Your task to perform on an android device: See recent photos Image 0: 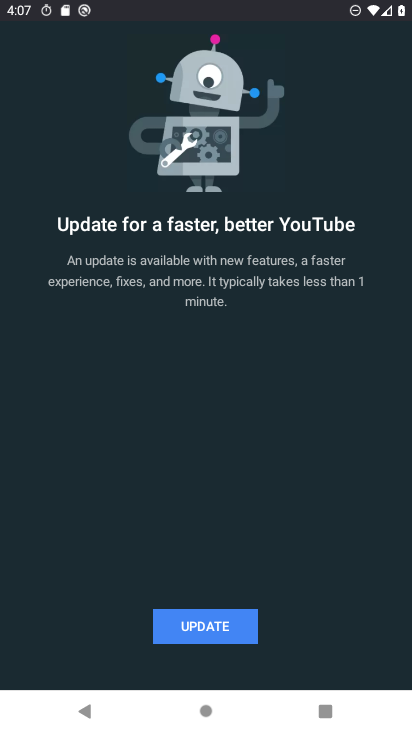
Step 0: press home button
Your task to perform on an android device: See recent photos Image 1: 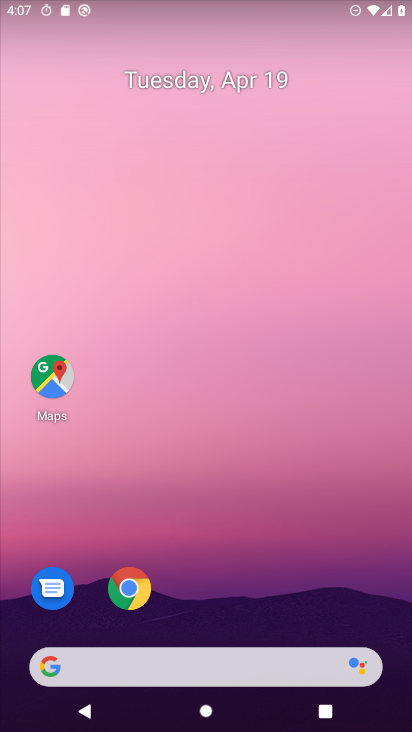
Step 1: drag from (219, 580) to (234, 84)
Your task to perform on an android device: See recent photos Image 2: 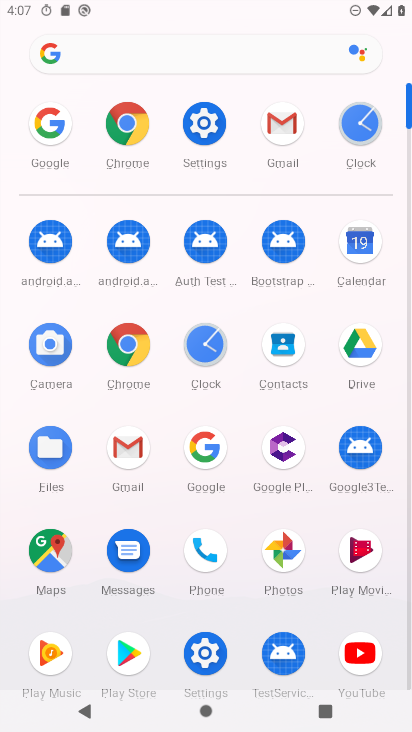
Step 2: click (285, 548)
Your task to perform on an android device: See recent photos Image 3: 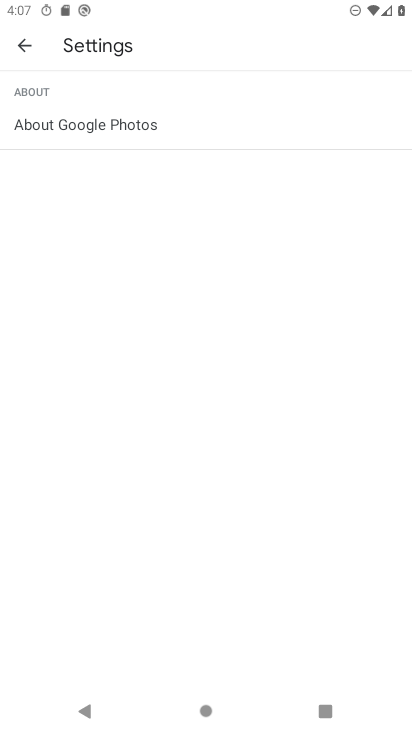
Step 3: click (24, 52)
Your task to perform on an android device: See recent photos Image 4: 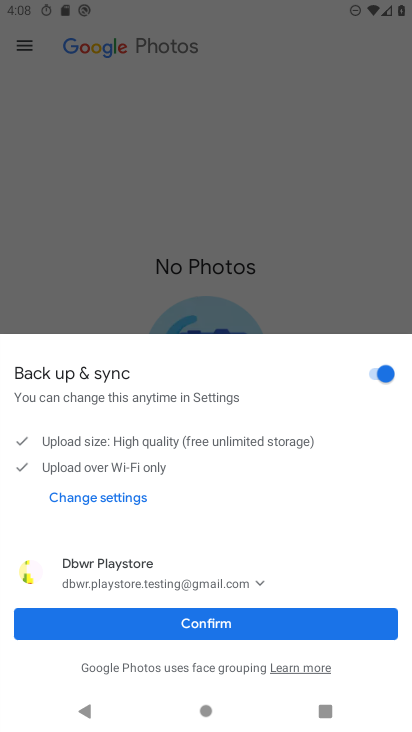
Step 4: click (215, 625)
Your task to perform on an android device: See recent photos Image 5: 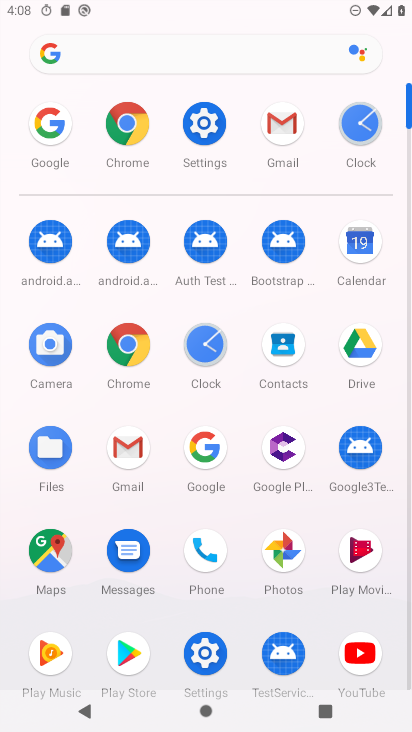
Step 5: click (283, 559)
Your task to perform on an android device: See recent photos Image 6: 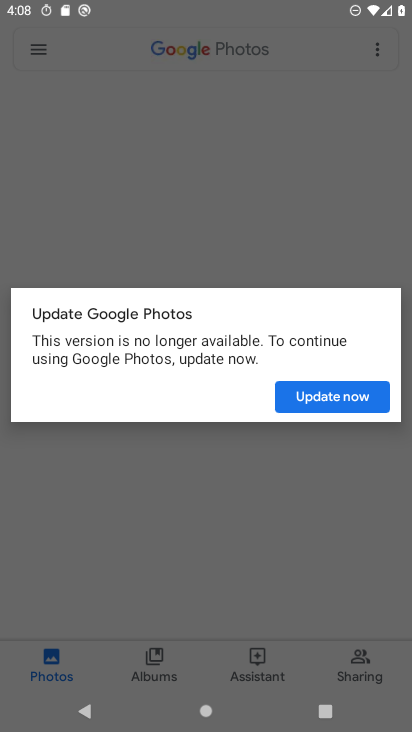
Step 6: click (294, 396)
Your task to perform on an android device: See recent photos Image 7: 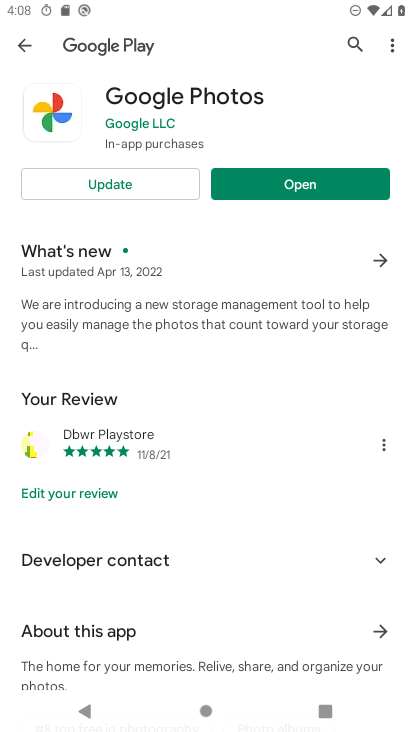
Step 7: click (125, 190)
Your task to perform on an android device: See recent photos Image 8: 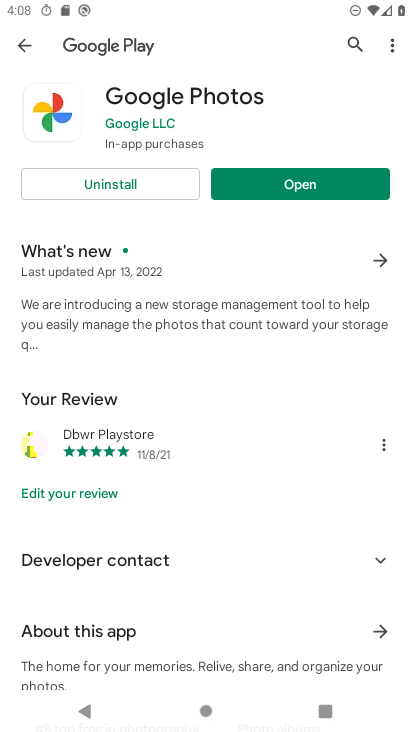
Step 8: click (252, 188)
Your task to perform on an android device: See recent photos Image 9: 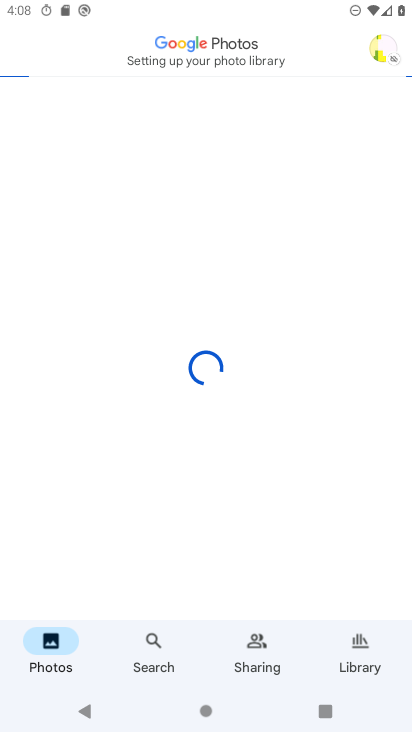
Step 9: click (150, 654)
Your task to perform on an android device: See recent photos Image 10: 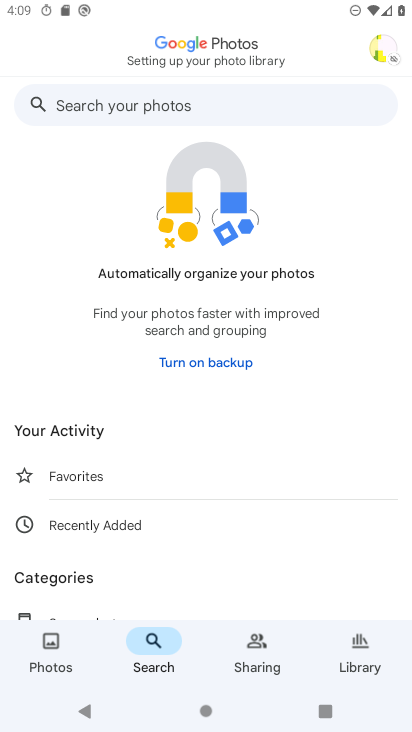
Step 10: click (101, 520)
Your task to perform on an android device: See recent photos Image 11: 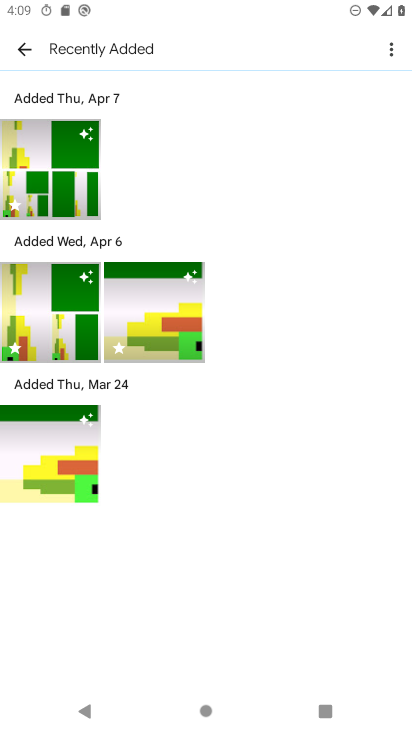
Step 11: task complete